Your task to perform on an android device: Open settings on Google Maps Image 0: 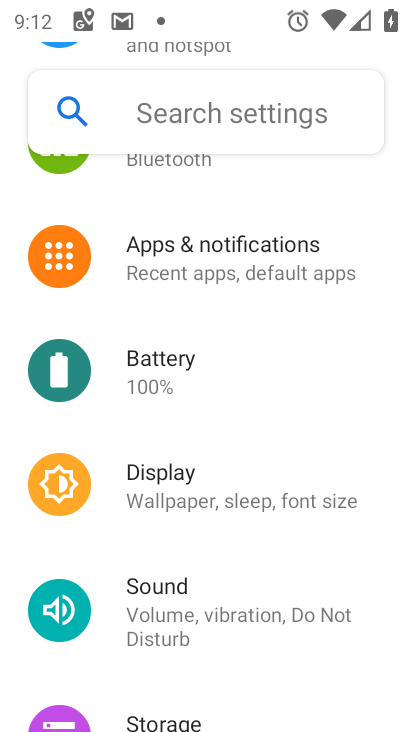
Step 0: press home button
Your task to perform on an android device: Open settings on Google Maps Image 1: 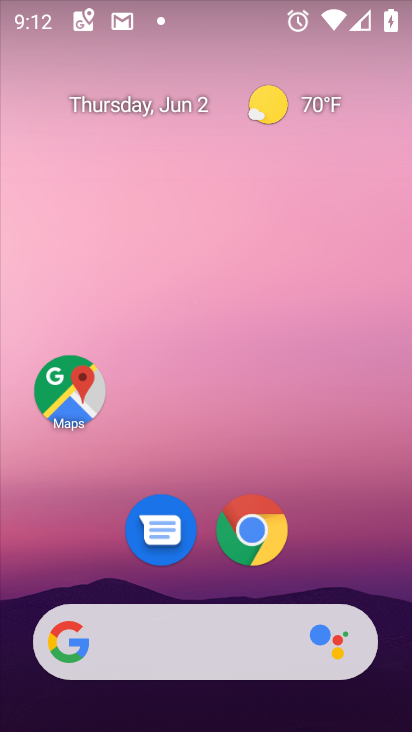
Step 1: drag from (162, 617) to (126, 197)
Your task to perform on an android device: Open settings on Google Maps Image 2: 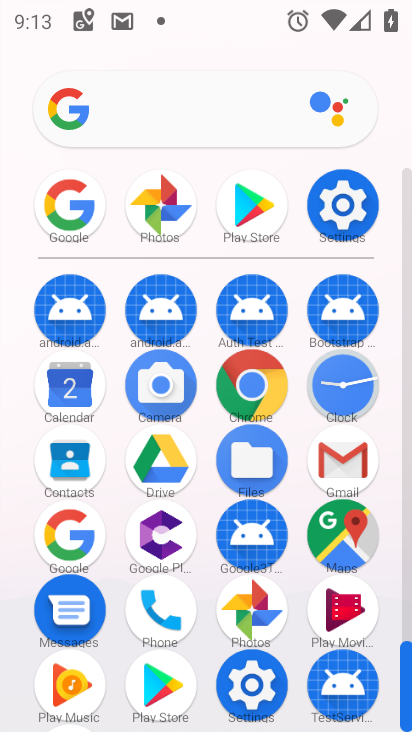
Step 2: click (357, 511)
Your task to perform on an android device: Open settings on Google Maps Image 3: 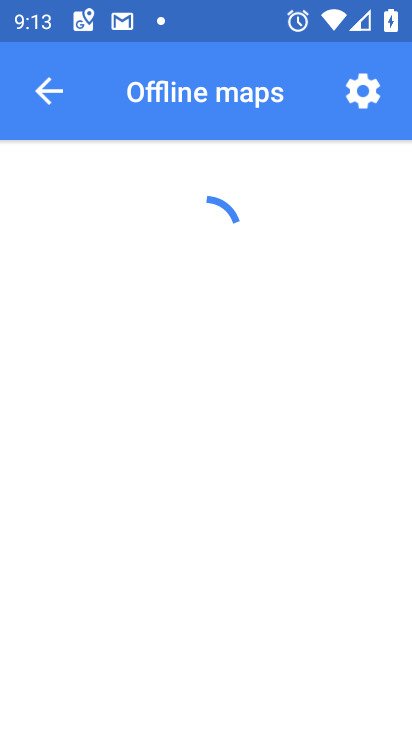
Step 3: click (45, 101)
Your task to perform on an android device: Open settings on Google Maps Image 4: 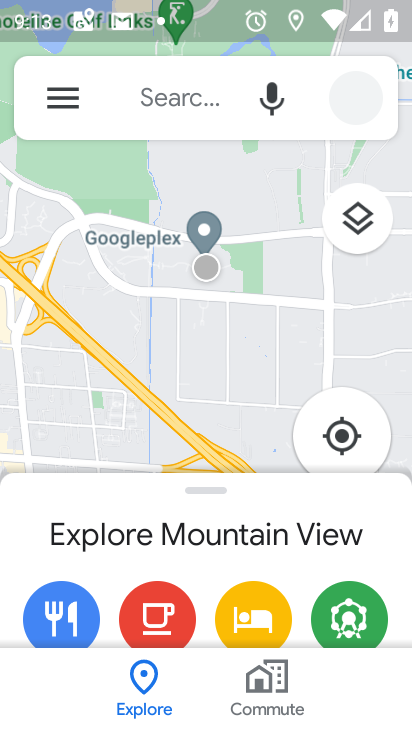
Step 4: click (50, 99)
Your task to perform on an android device: Open settings on Google Maps Image 5: 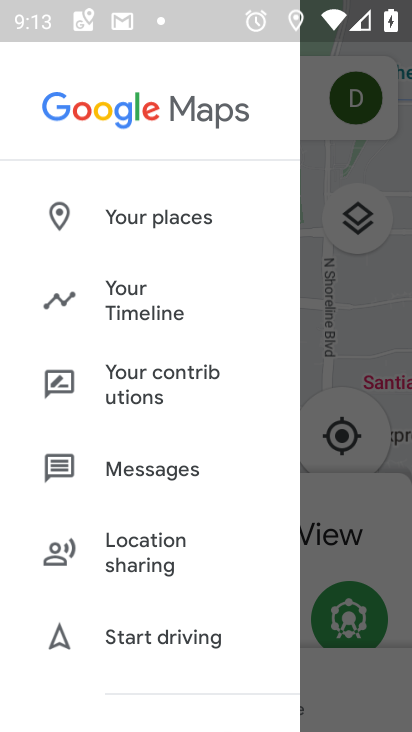
Step 5: drag from (128, 665) to (109, 254)
Your task to perform on an android device: Open settings on Google Maps Image 6: 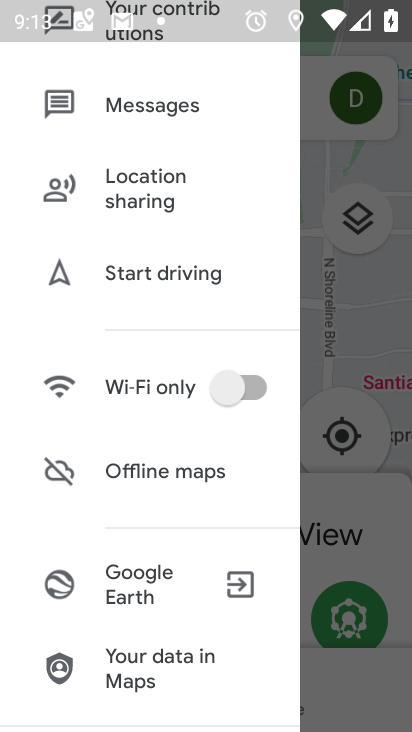
Step 6: drag from (129, 689) to (121, 448)
Your task to perform on an android device: Open settings on Google Maps Image 7: 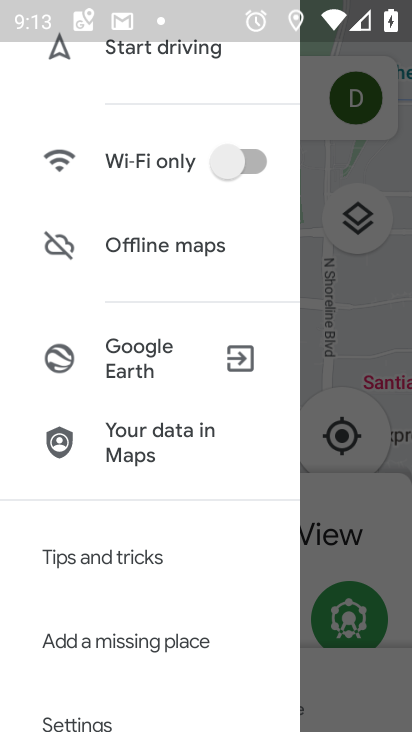
Step 7: click (62, 719)
Your task to perform on an android device: Open settings on Google Maps Image 8: 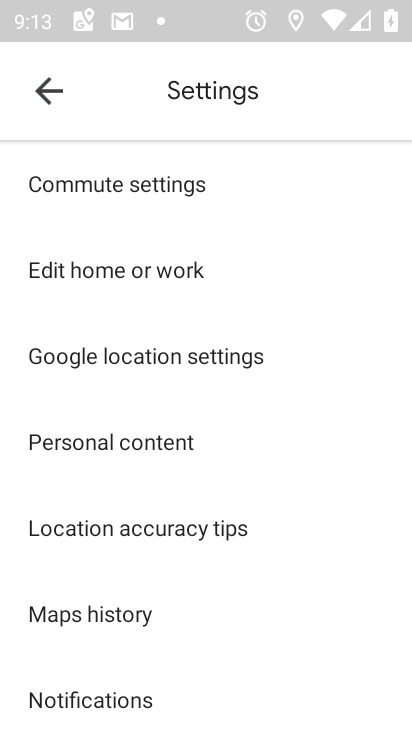
Step 8: task complete